Your task to perform on an android device: toggle notifications settings in the gmail app Image 0: 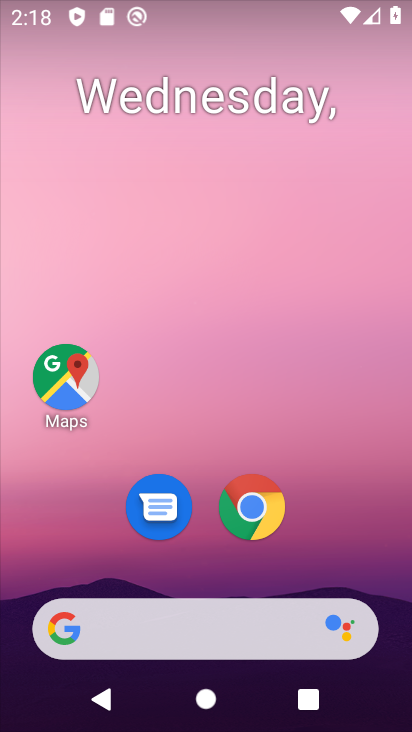
Step 0: drag from (347, 577) to (342, 0)
Your task to perform on an android device: toggle notifications settings in the gmail app Image 1: 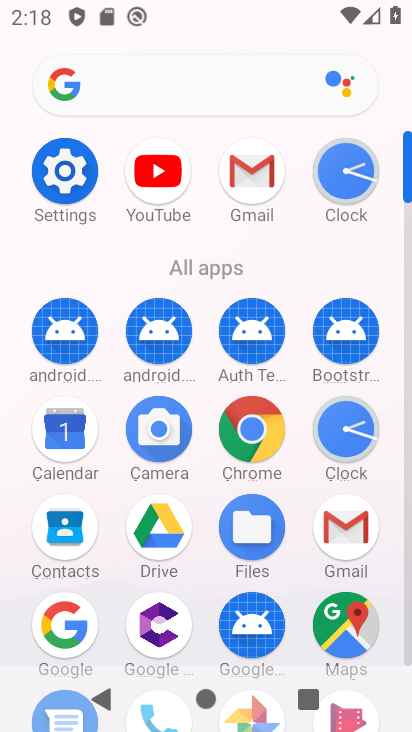
Step 1: click (334, 535)
Your task to perform on an android device: toggle notifications settings in the gmail app Image 2: 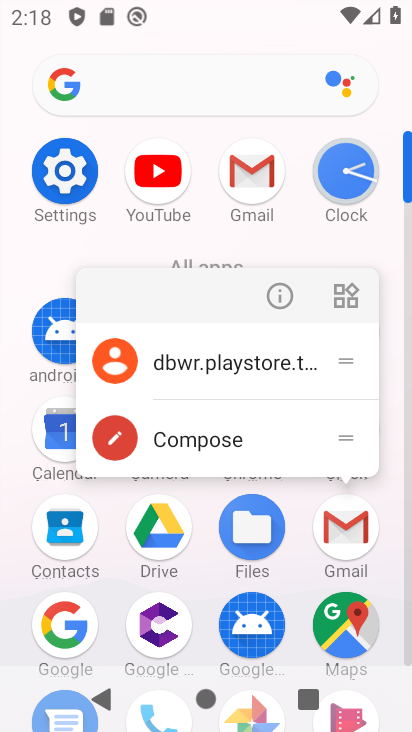
Step 2: click (279, 290)
Your task to perform on an android device: toggle notifications settings in the gmail app Image 3: 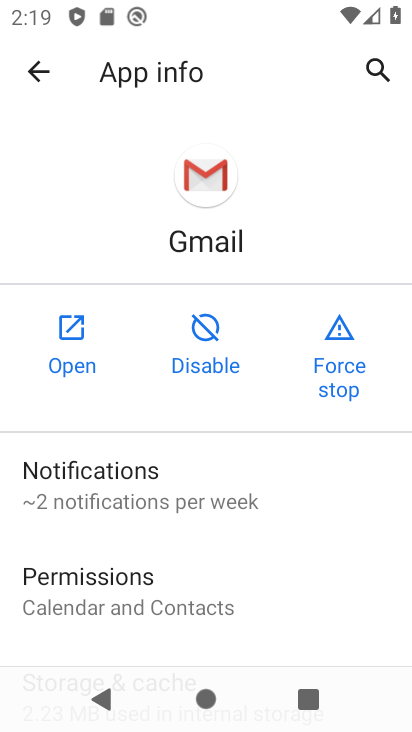
Step 3: click (209, 474)
Your task to perform on an android device: toggle notifications settings in the gmail app Image 4: 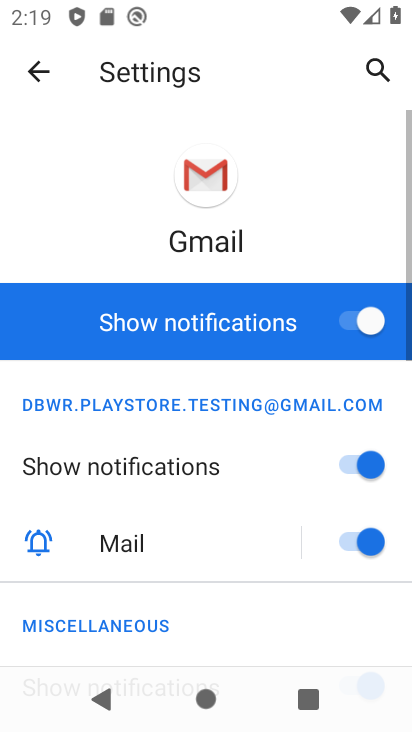
Step 4: click (374, 323)
Your task to perform on an android device: toggle notifications settings in the gmail app Image 5: 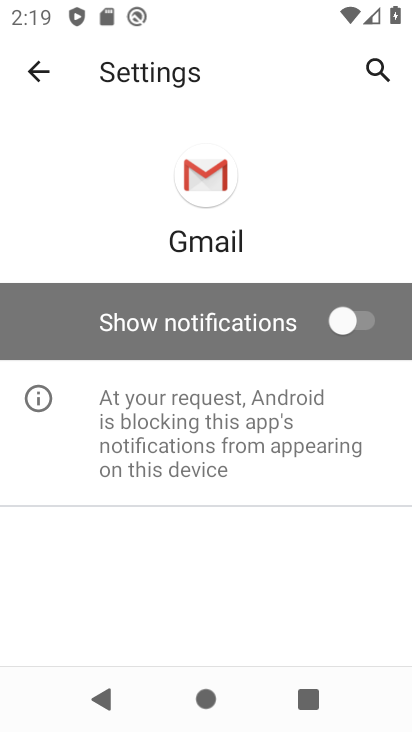
Step 5: task complete